Your task to perform on an android device: Go to eBay Image 0: 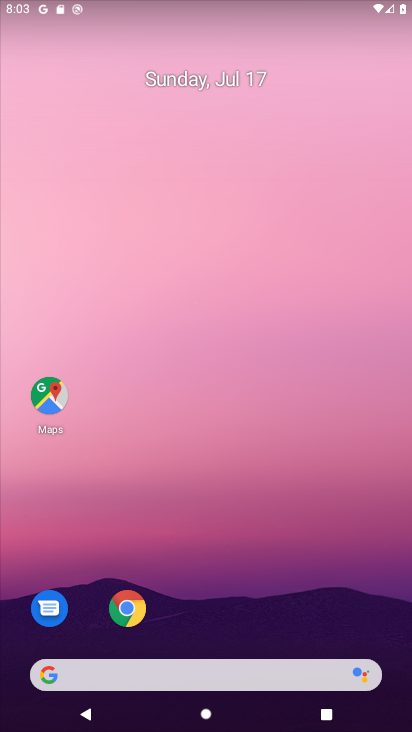
Step 0: click (122, 608)
Your task to perform on an android device: Go to eBay Image 1: 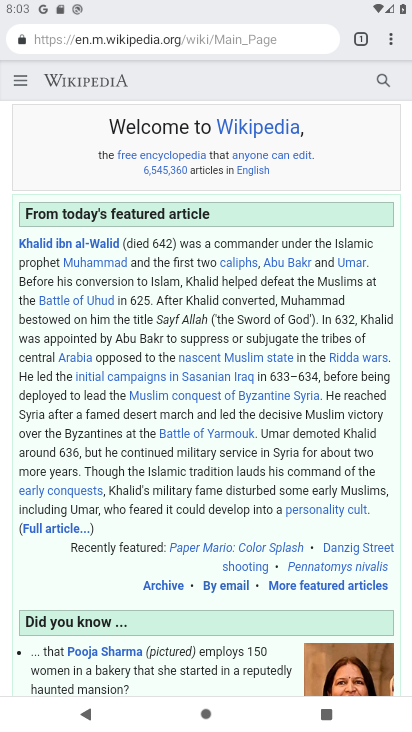
Step 1: click (359, 33)
Your task to perform on an android device: Go to eBay Image 2: 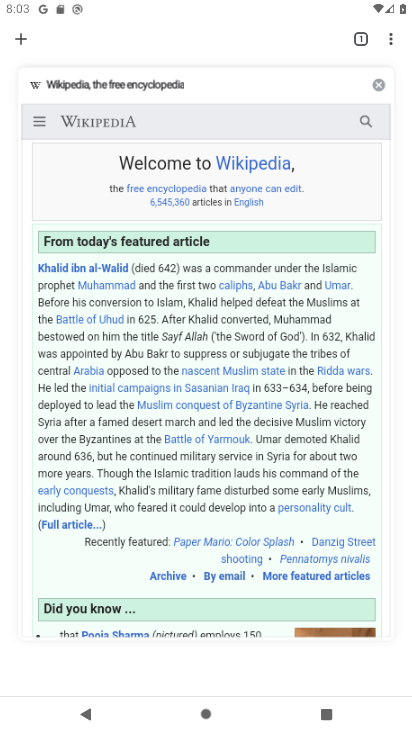
Step 2: click (375, 86)
Your task to perform on an android device: Go to eBay Image 3: 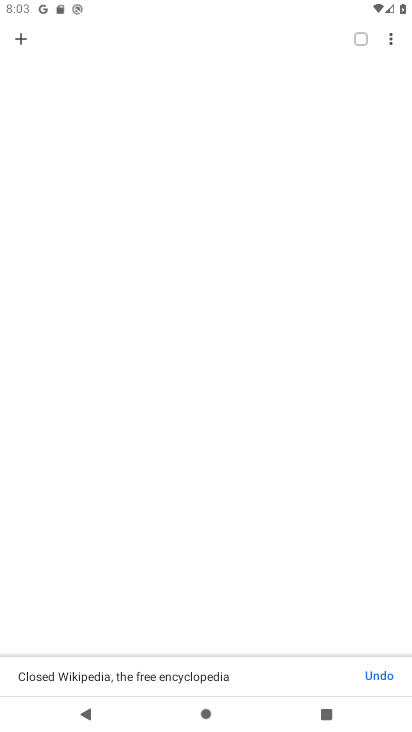
Step 3: click (24, 38)
Your task to perform on an android device: Go to eBay Image 4: 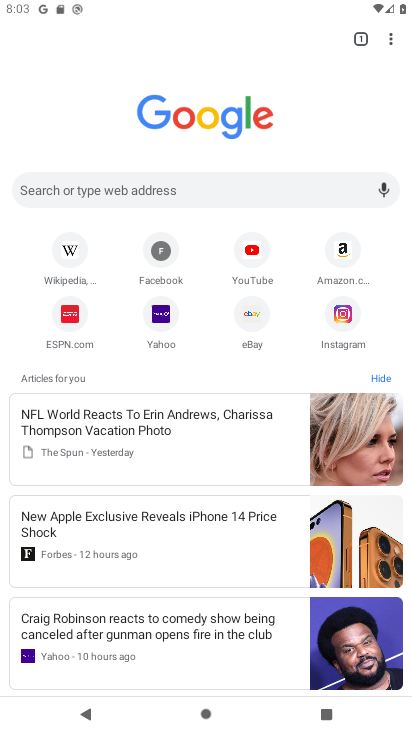
Step 4: click (244, 315)
Your task to perform on an android device: Go to eBay Image 5: 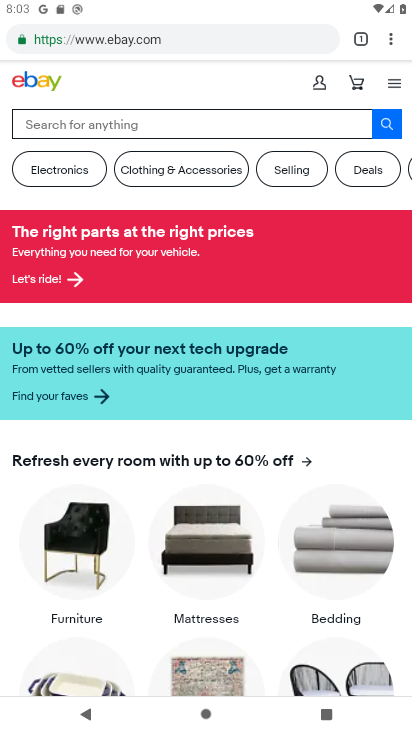
Step 5: task complete